Your task to perform on an android device: Open maps Image 0: 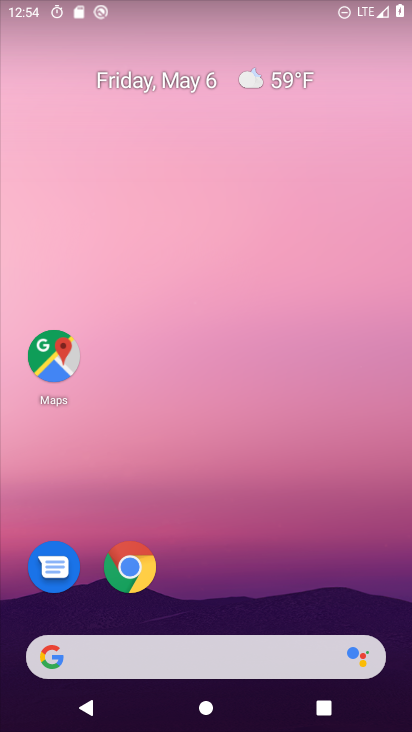
Step 0: click (48, 363)
Your task to perform on an android device: Open maps Image 1: 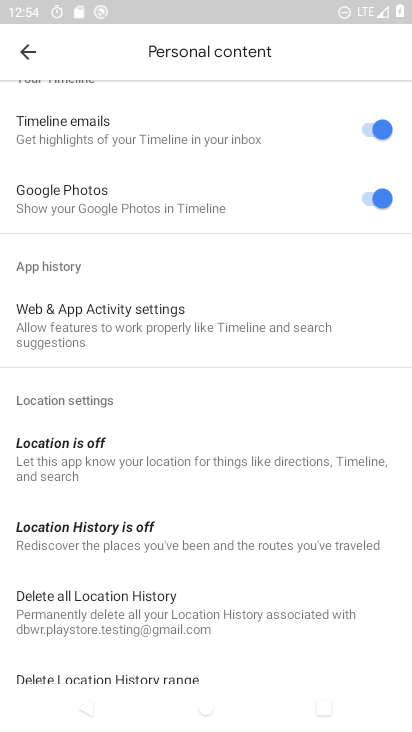
Step 1: click (30, 52)
Your task to perform on an android device: Open maps Image 2: 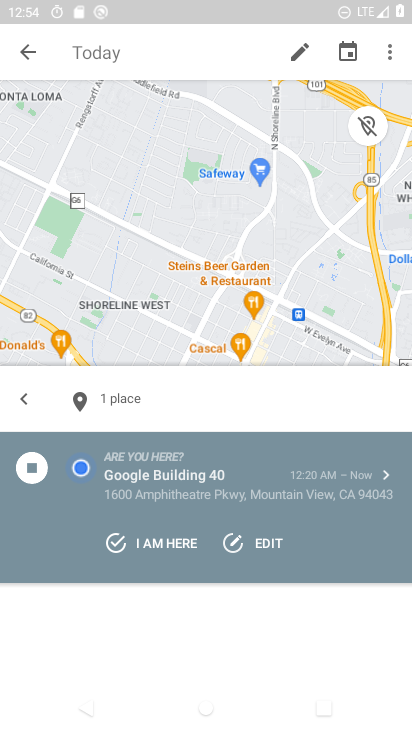
Step 2: click (16, 53)
Your task to perform on an android device: Open maps Image 3: 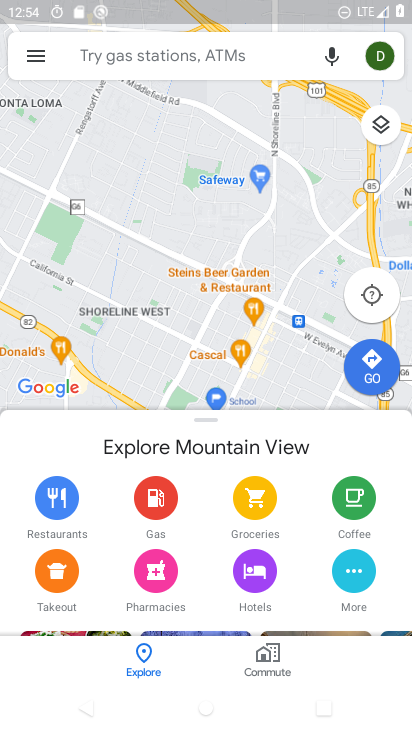
Step 3: task complete